Your task to perform on an android device: Clear all items from cart on newegg.com. Search for "bose soundlink mini" on newegg.com, select the first entry, and add it to the cart. Image 0: 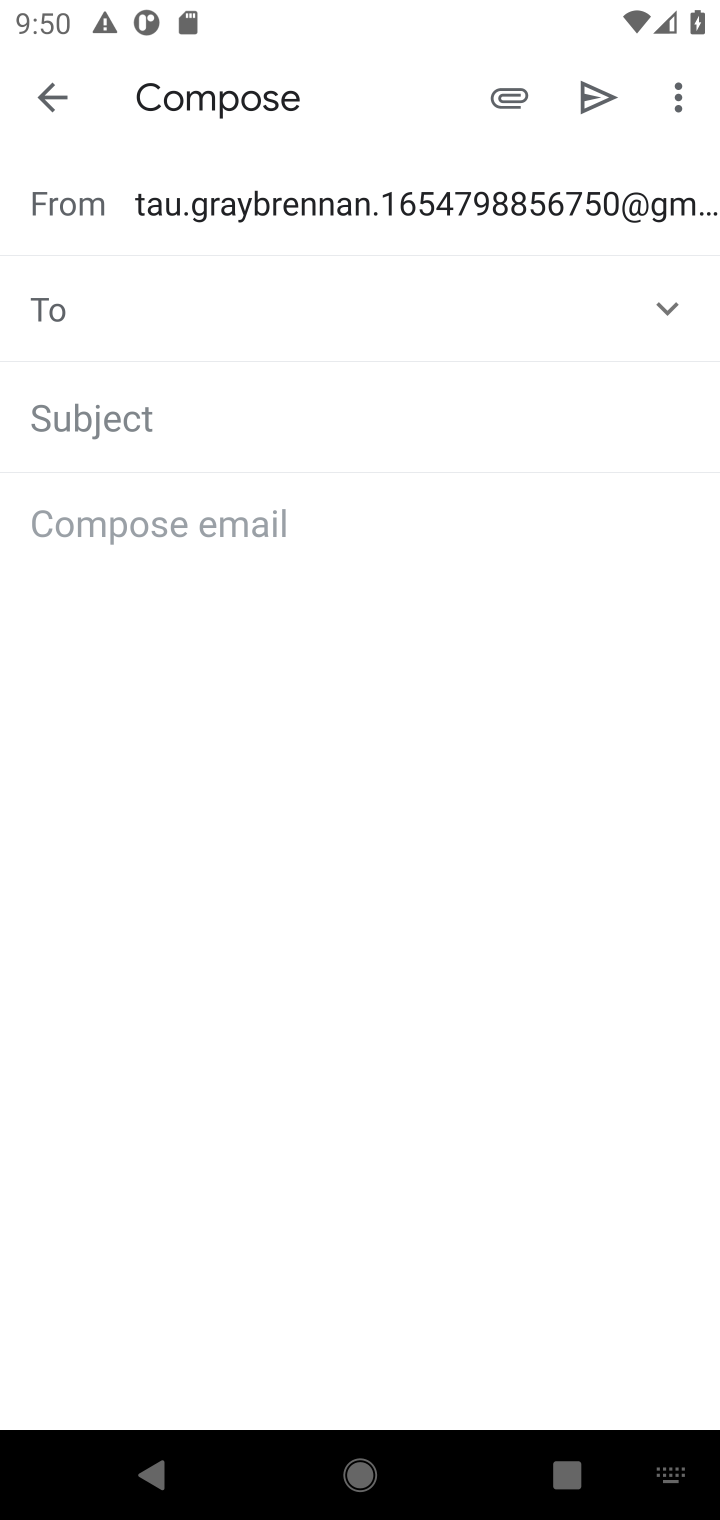
Step 0: press home button
Your task to perform on an android device: Clear all items from cart on newegg.com. Search for "bose soundlink mini" on newegg.com, select the first entry, and add it to the cart. Image 1: 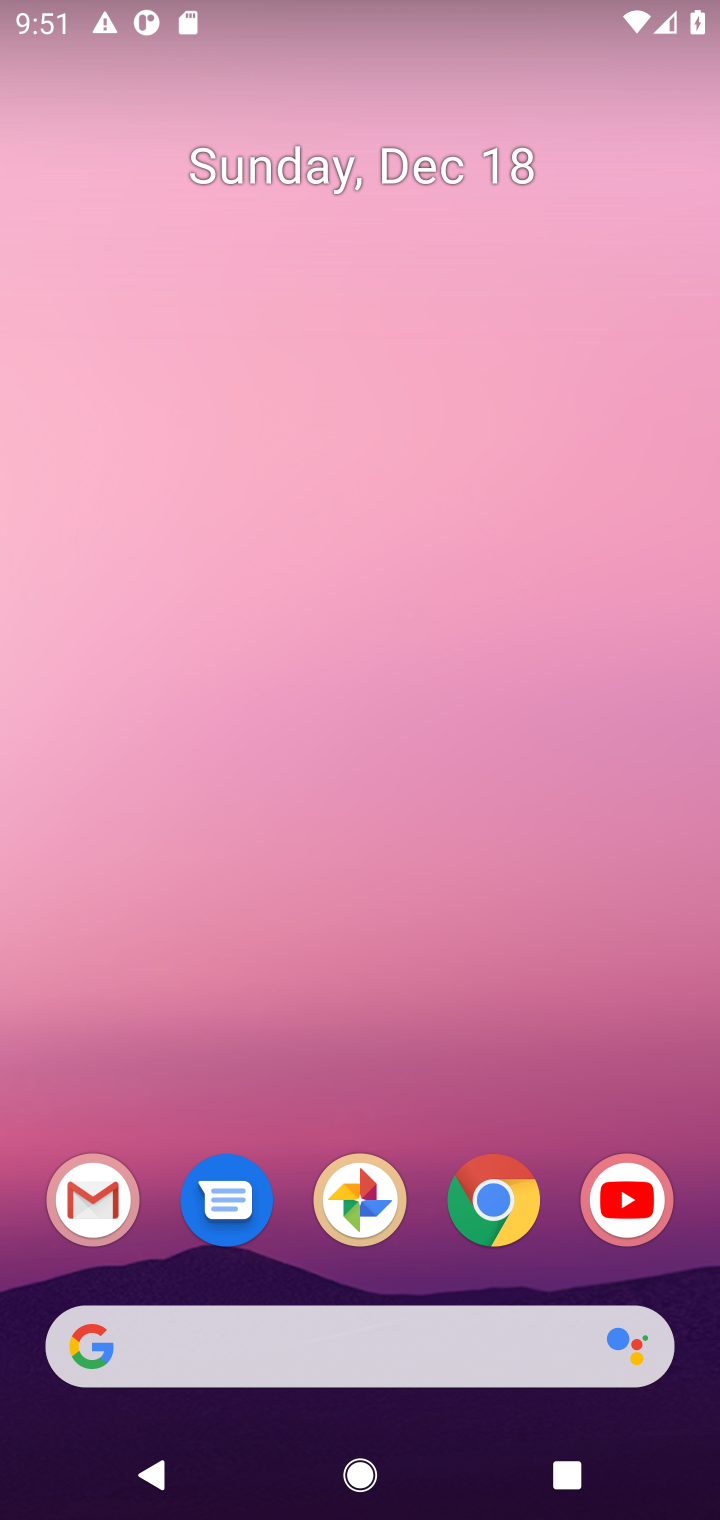
Step 1: click (492, 1203)
Your task to perform on an android device: Clear all items from cart on newegg.com. Search for "bose soundlink mini" on newegg.com, select the first entry, and add it to the cart. Image 2: 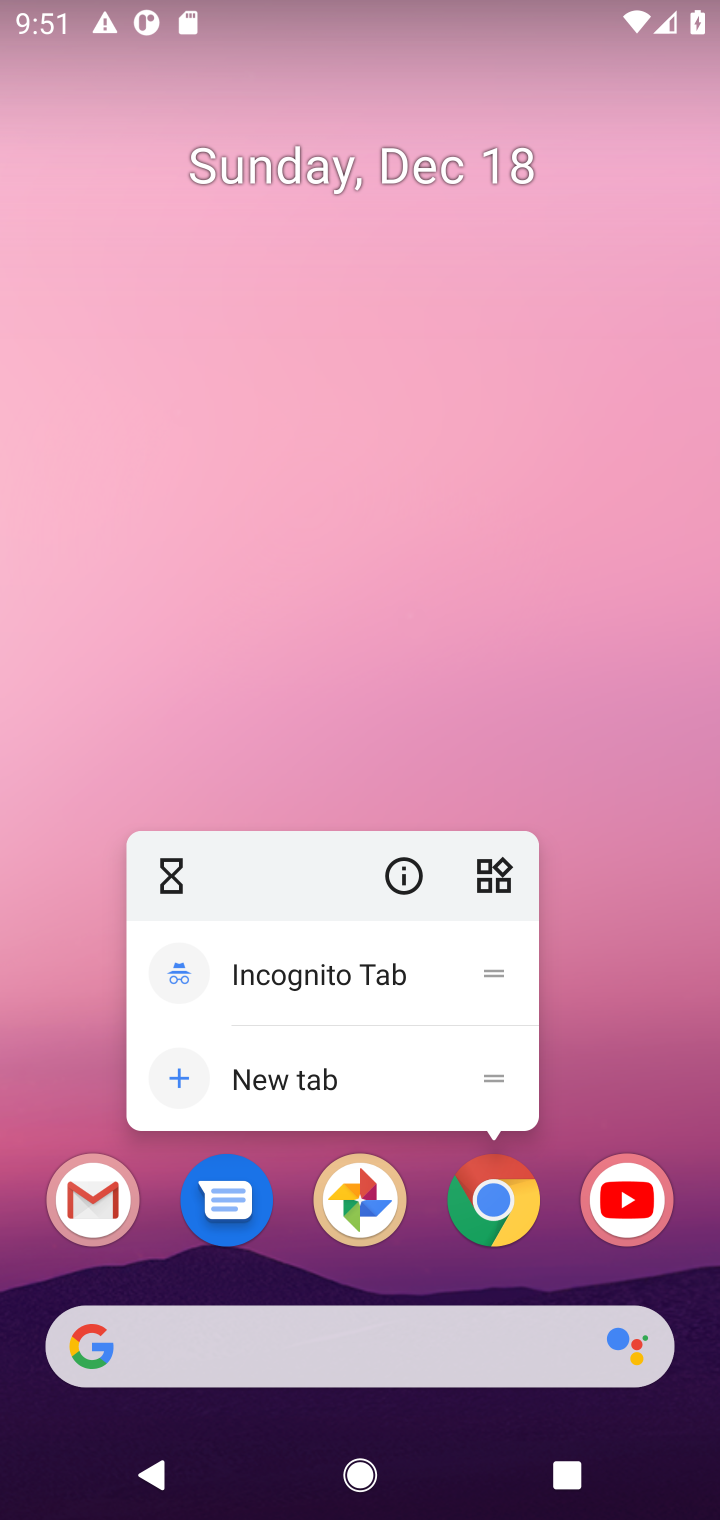
Step 2: click (492, 1203)
Your task to perform on an android device: Clear all items from cart on newegg.com. Search for "bose soundlink mini" on newegg.com, select the first entry, and add it to the cart. Image 3: 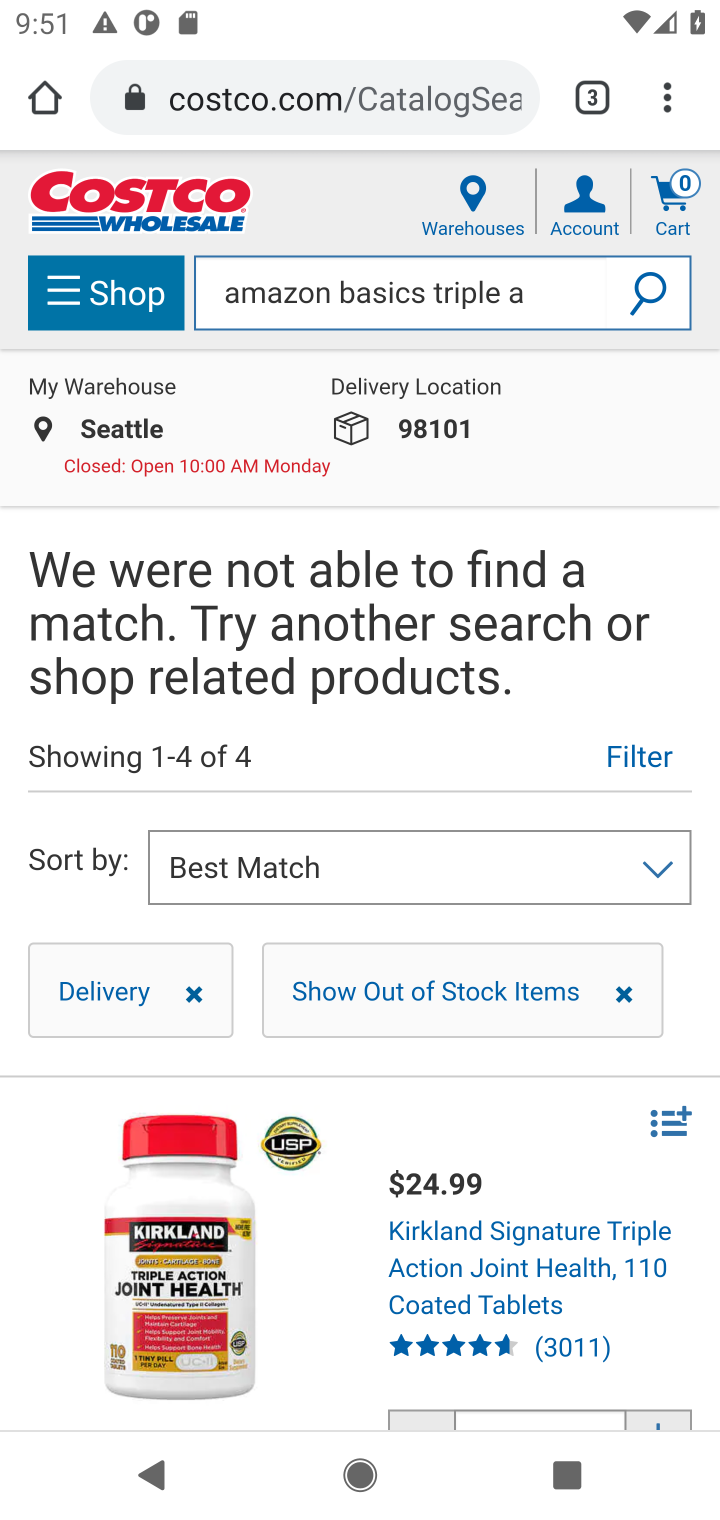
Step 3: click (267, 89)
Your task to perform on an android device: Clear all items from cart on newegg.com. Search for "bose soundlink mini" on newegg.com, select the first entry, and add it to the cart. Image 4: 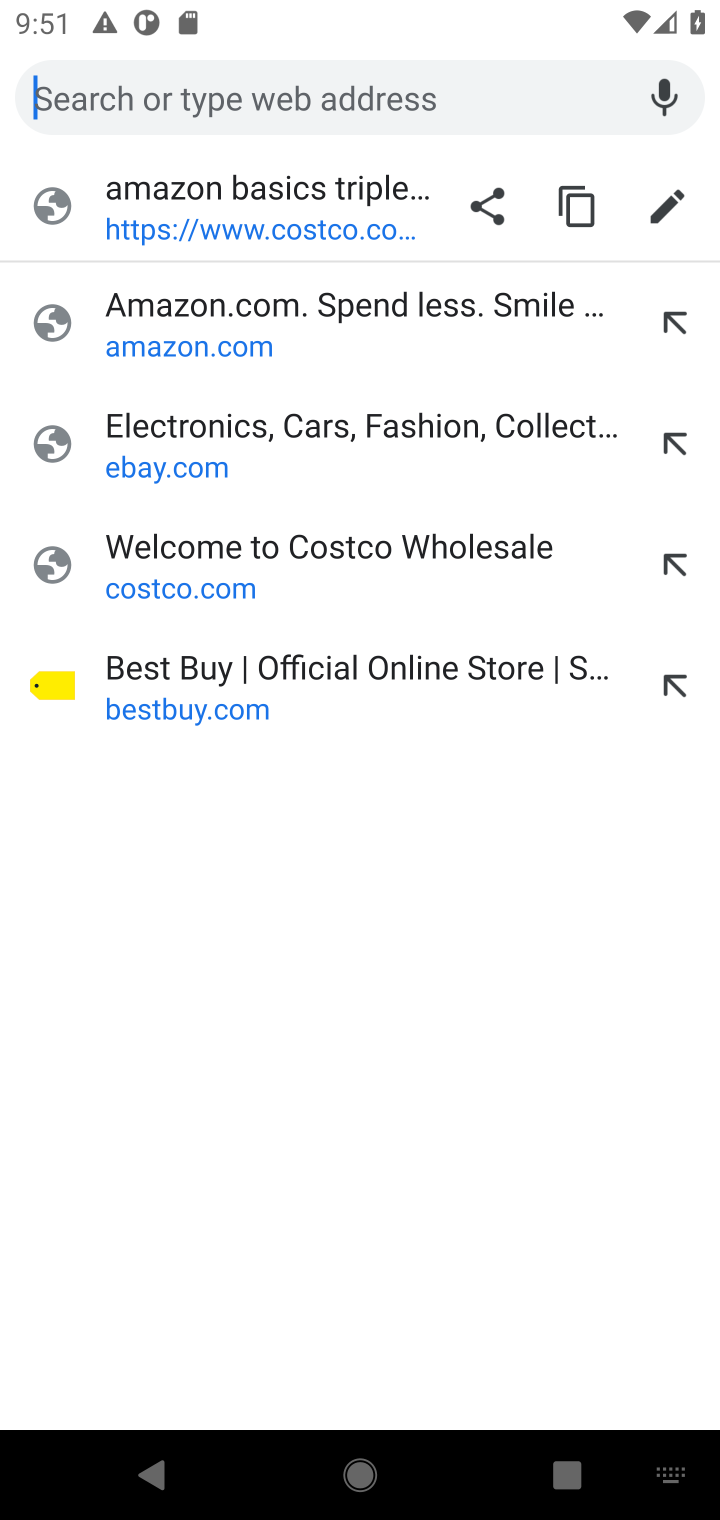
Step 4: type "newegg.com"
Your task to perform on an android device: Clear all items from cart on newegg.com. Search for "bose soundlink mini" on newegg.com, select the first entry, and add it to the cart. Image 5: 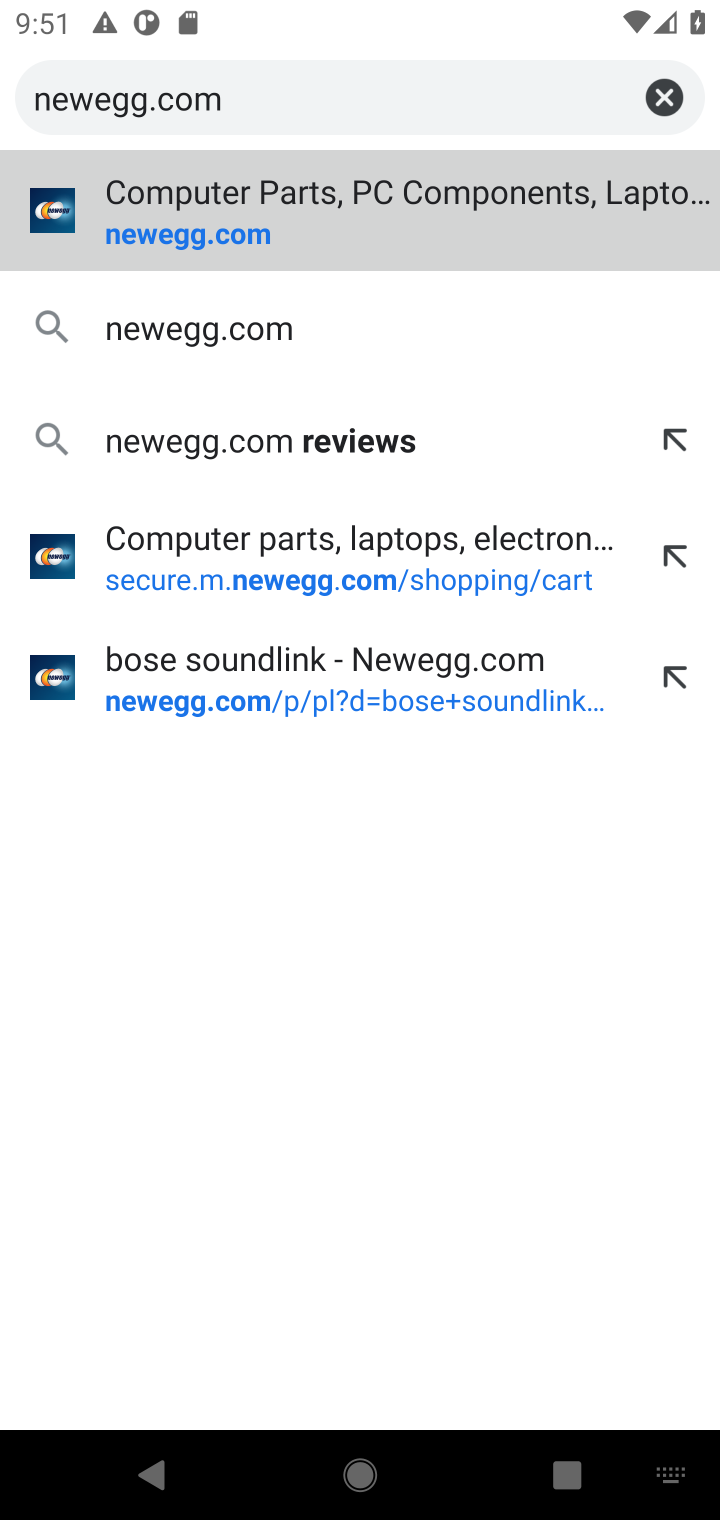
Step 5: click (179, 230)
Your task to perform on an android device: Clear all items from cart on newegg.com. Search for "bose soundlink mini" on newegg.com, select the first entry, and add it to the cart. Image 6: 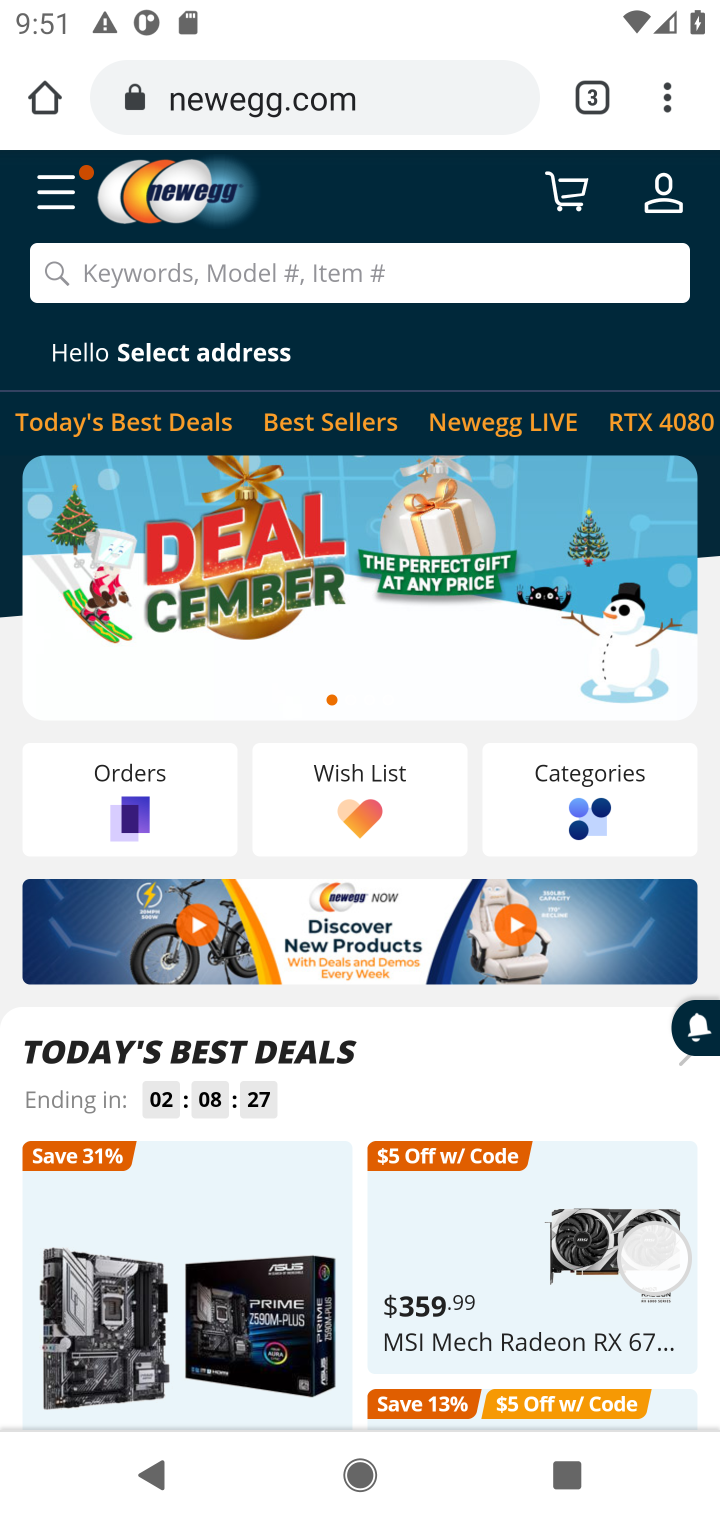
Step 6: click (560, 193)
Your task to perform on an android device: Clear all items from cart on newegg.com. Search for "bose soundlink mini" on newegg.com, select the first entry, and add it to the cart. Image 7: 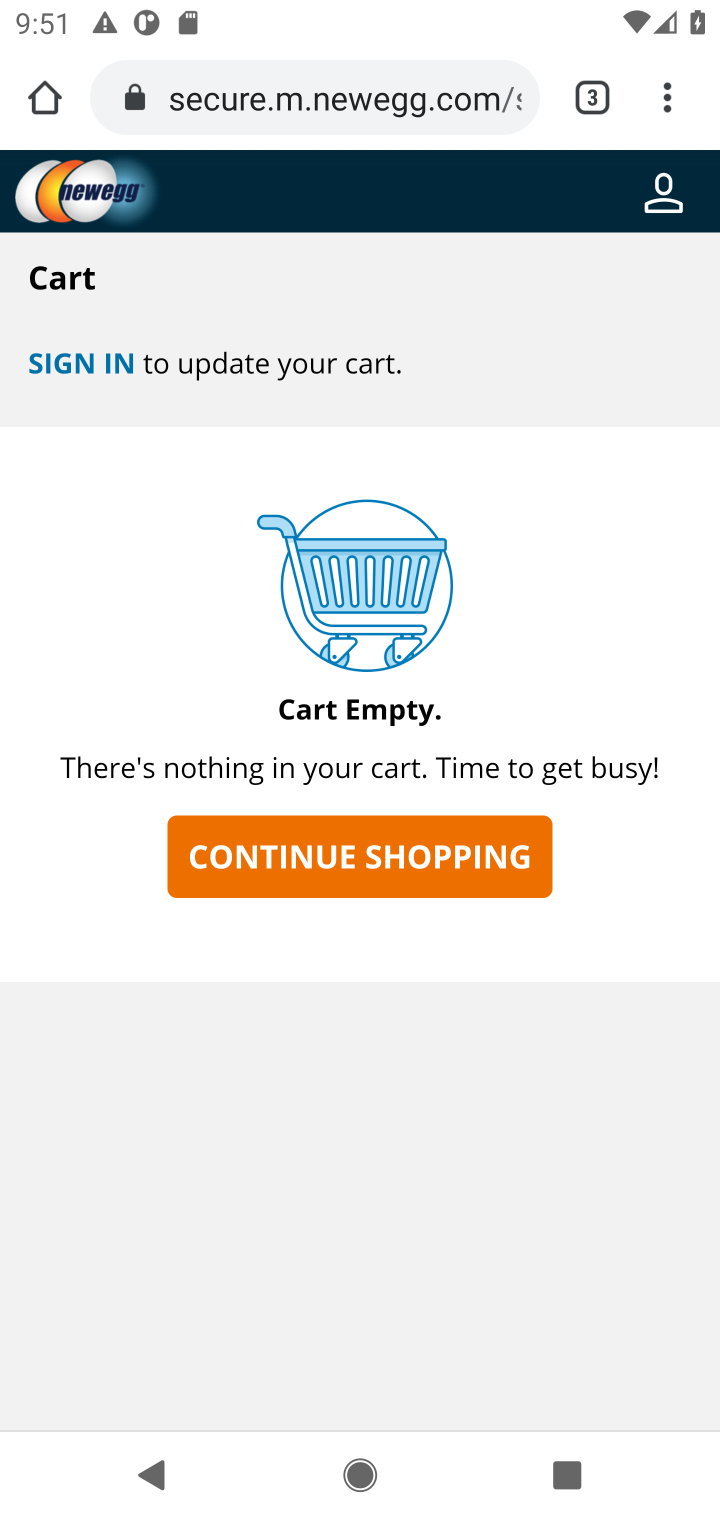
Step 7: click (276, 851)
Your task to perform on an android device: Clear all items from cart on newegg.com. Search for "bose soundlink mini" on newegg.com, select the first entry, and add it to the cart. Image 8: 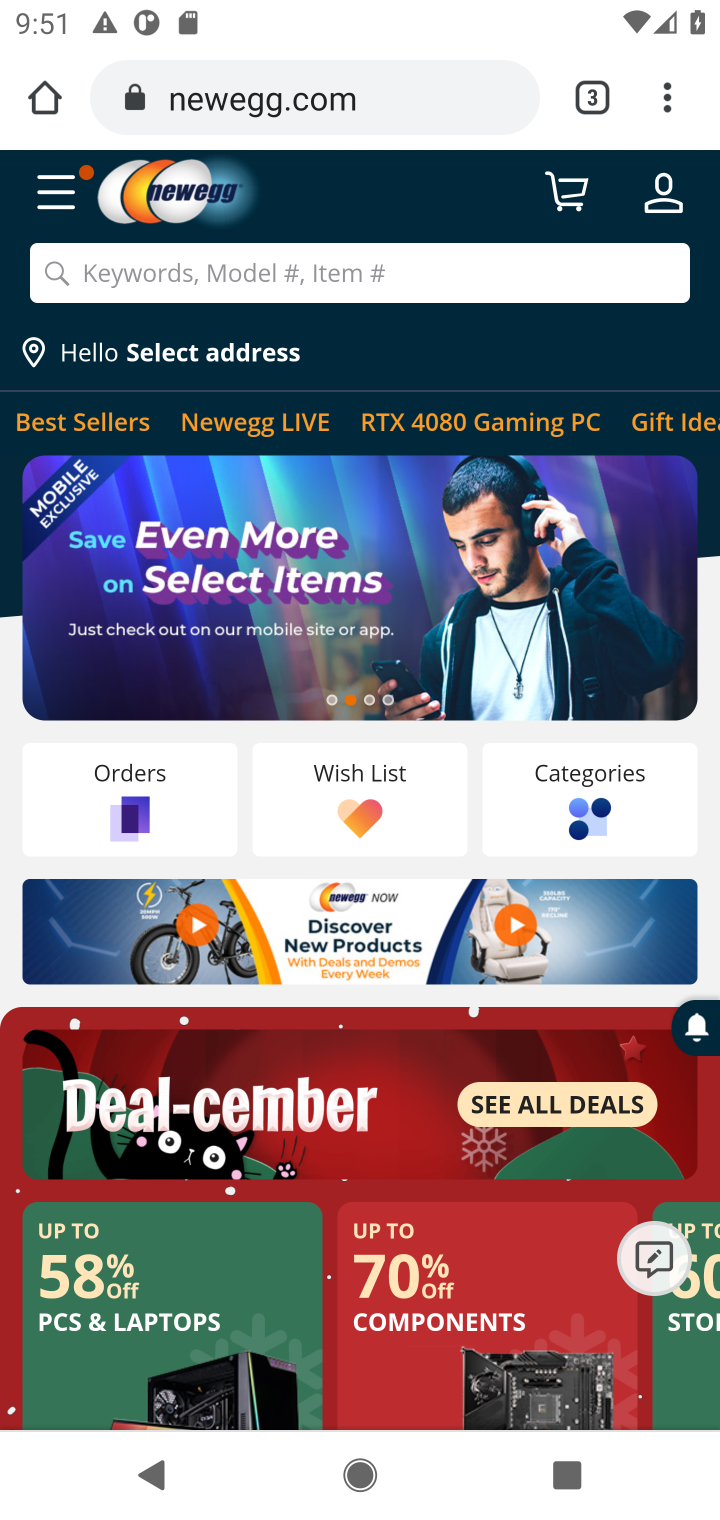
Step 8: click (153, 280)
Your task to perform on an android device: Clear all items from cart on newegg.com. Search for "bose soundlink mini" on newegg.com, select the first entry, and add it to the cart. Image 9: 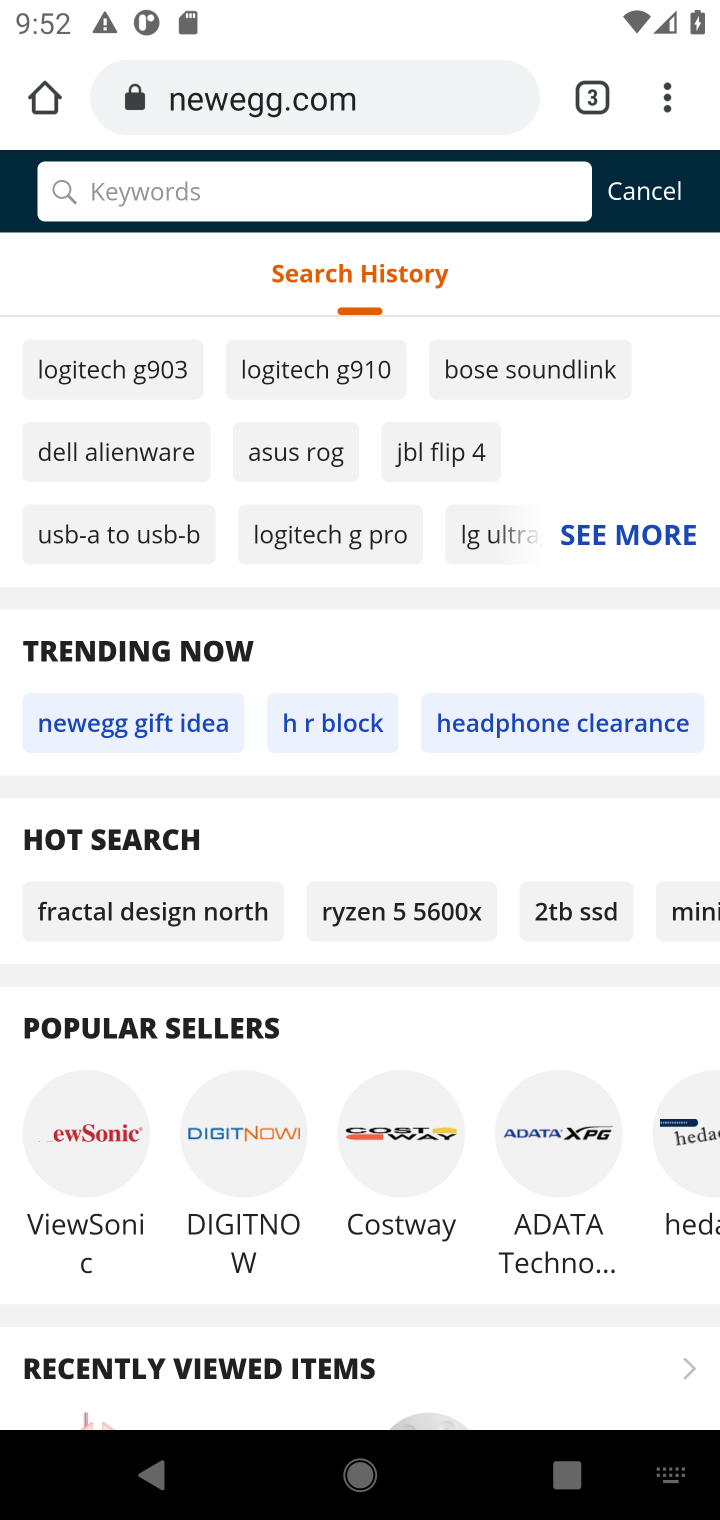
Step 9: type "bose soundlink mini"
Your task to perform on an android device: Clear all items from cart on newegg.com. Search for "bose soundlink mini" on newegg.com, select the first entry, and add it to the cart. Image 10: 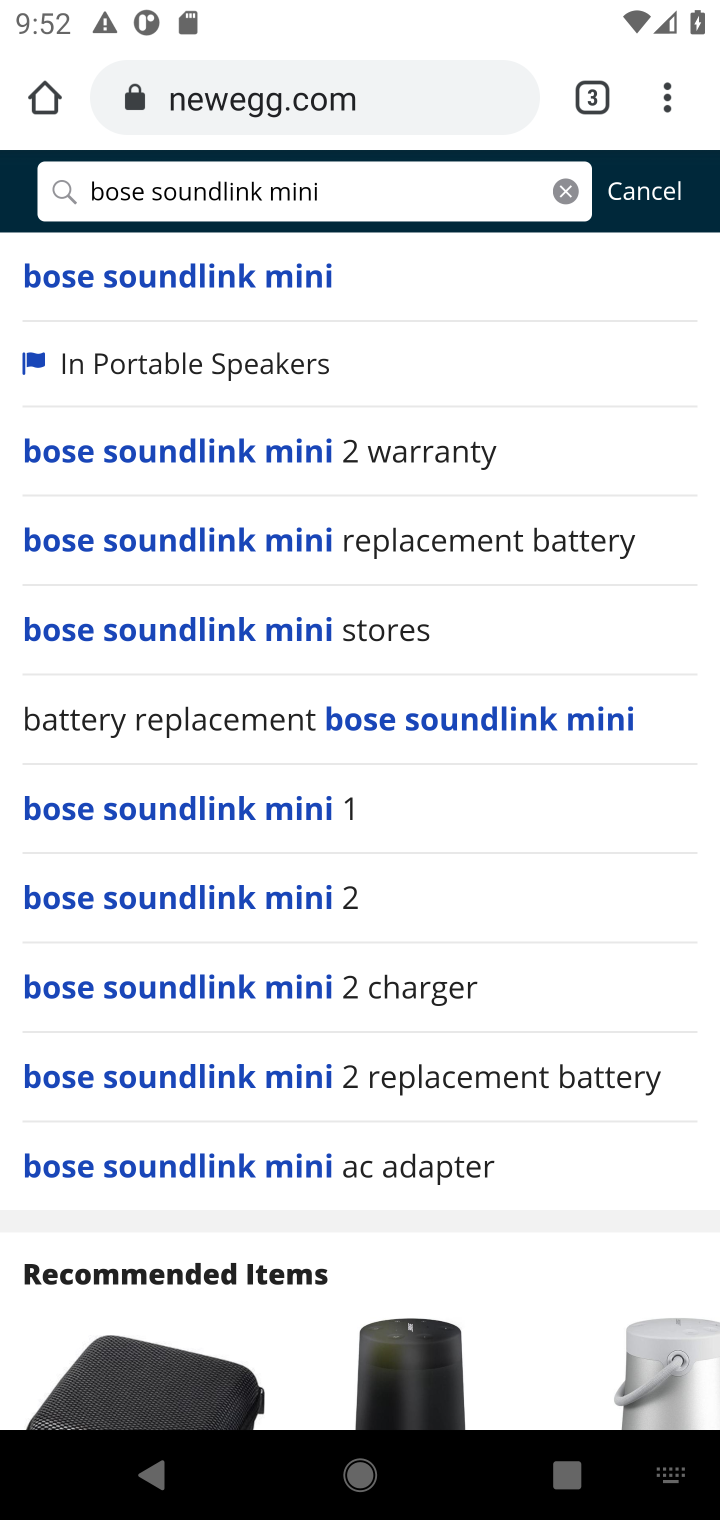
Step 10: click (226, 277)
Your task to perform on an android device: Clear all items from cart on newegg.com. Search for "bose soundlink mini" on newegg.com, select the first entry, and add it to the cart. Image 11: 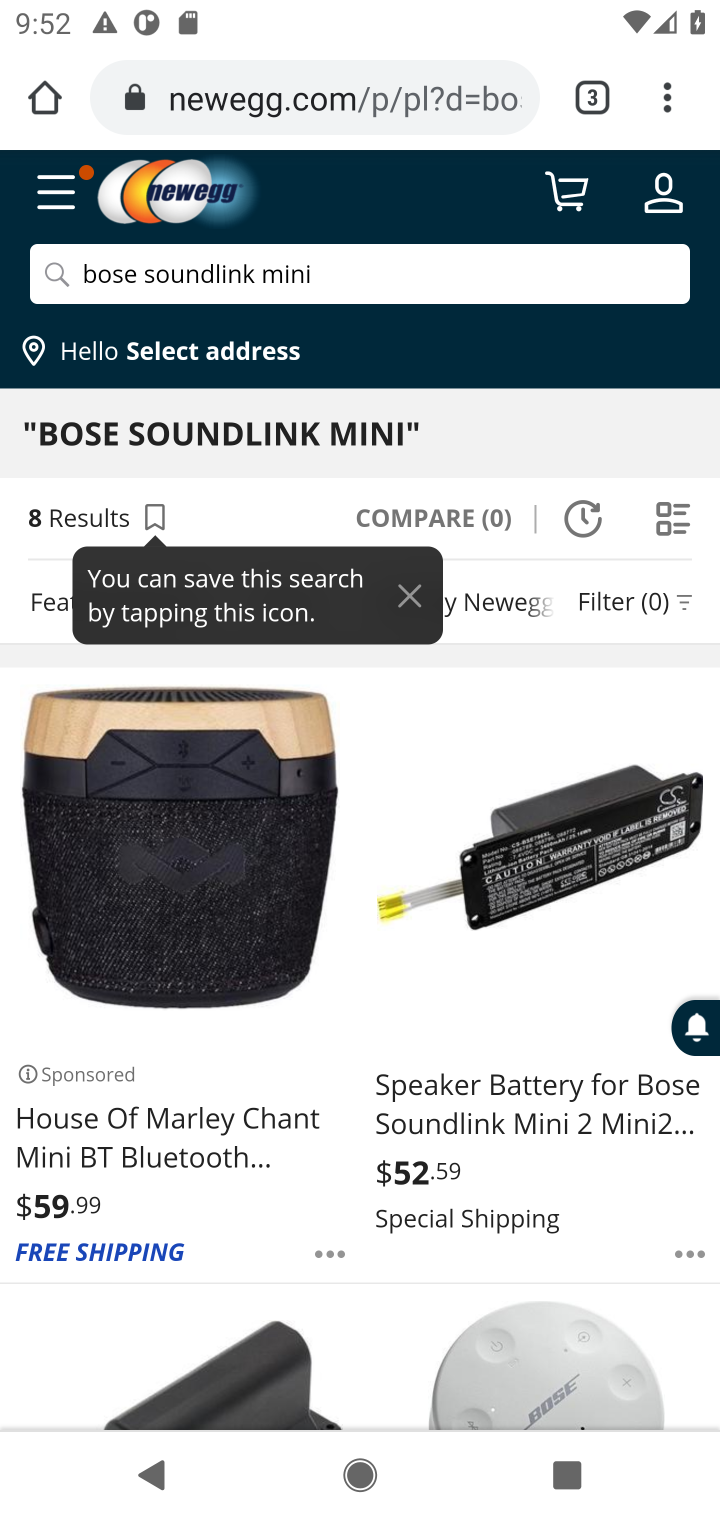
Step 11: task complete